Your task to perform on an android device: Do I have any events tomorrow? Image 0: 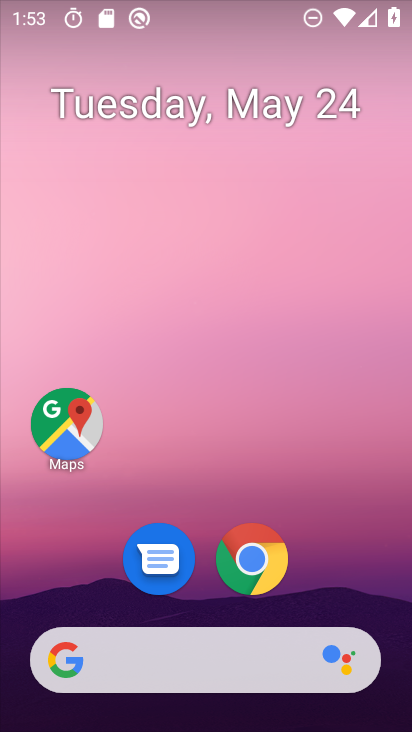
Step 0: press home button
Your task to perform on an android device: Do I have any events tomorrow? Image 1: 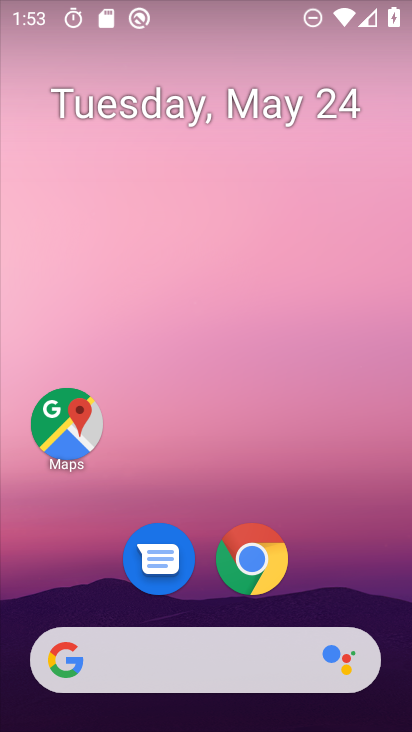
Step 1: drag from (399, 698) to (340, 229)
Your task to perform on an android device: Do I have any events tomorrow? Image 2: 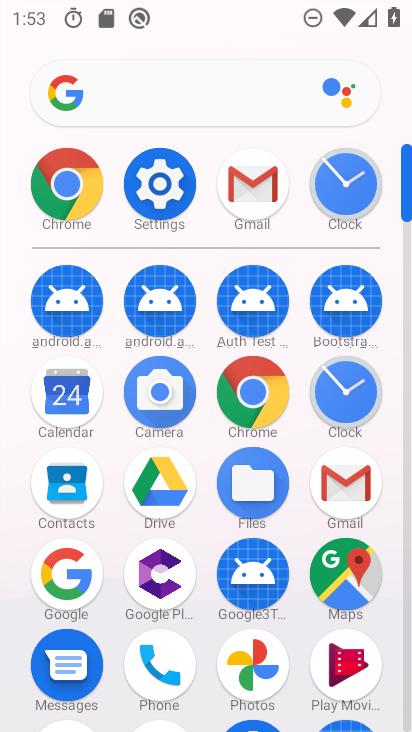
Step 2: click (70, 388)
Your task to perform on an android device: Do I have any events tomorrow? Image 3: 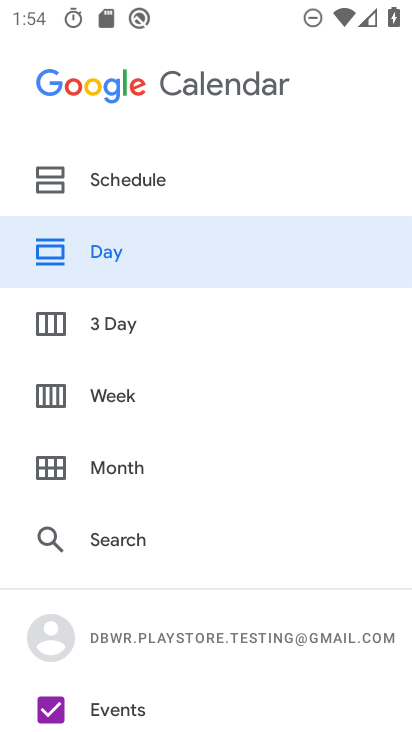
Step 3: press back button
Your task to perform on an android device: Do I have any events tomorrow? Image 4: 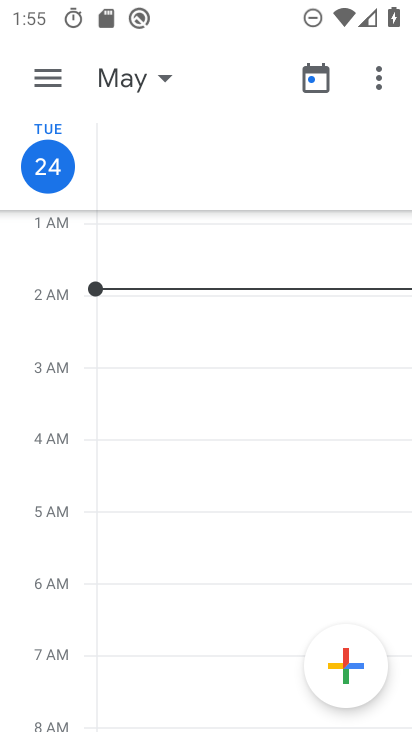
Step 4: press back button
Your task to perform on an android device: Do I have any events tomorrow? Image 5: 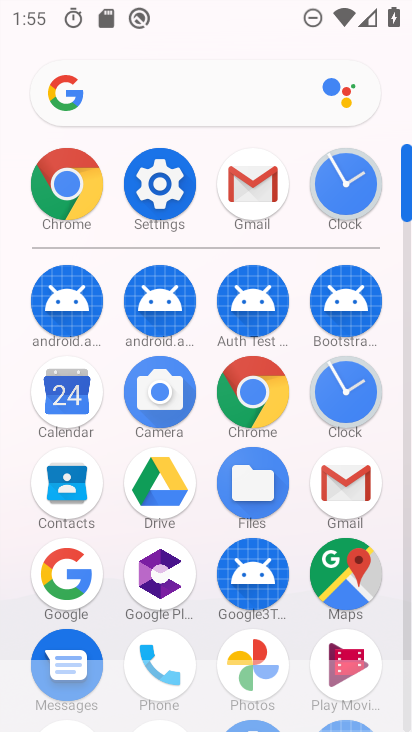
Step 5: click (63, 408)
Your task to perform on an android device: Do I have any events tomorrow? Image 6: 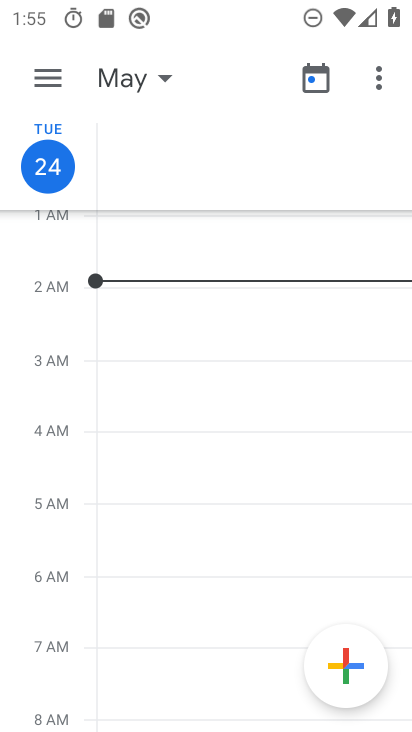
Step 6: click (161, 78)
Your task to perform on an android device: Do I have any events tomorrow? Image 7: 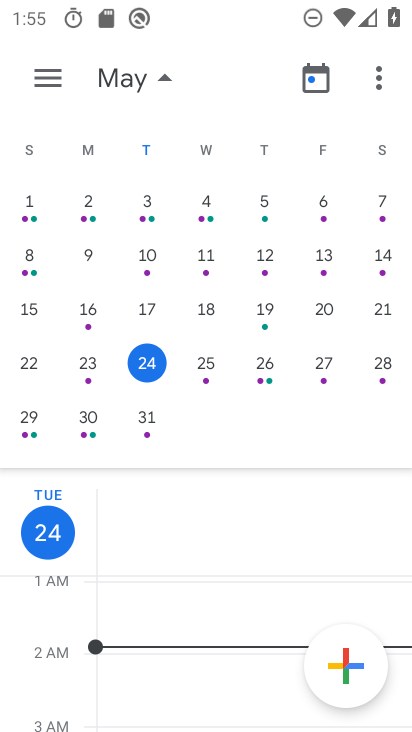
Step 7: click (213, 364)
Your task to perform on an android device: Do I have any events tomorrow? Image 8: 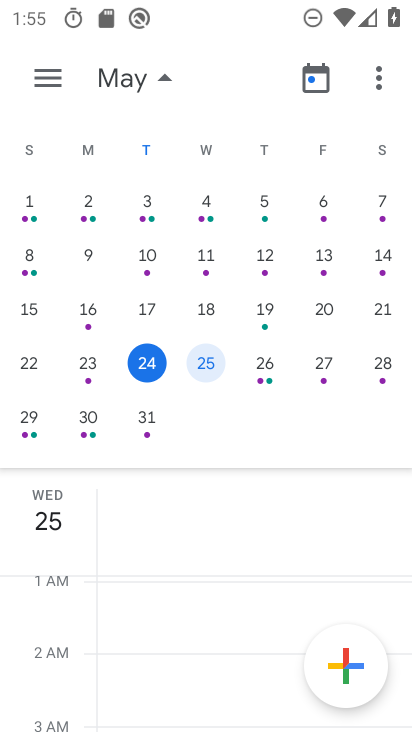
Step 8: click (55, 70)
Your task to perform on an android device: Do I have any events tomorrow? Image 9: 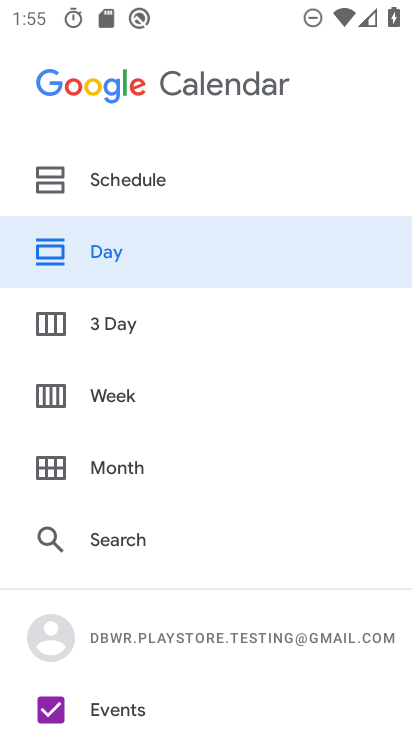
Step 9: click (85, 250)
Your task to perform on an android device: Do I have any events tomorrow? Image 10: 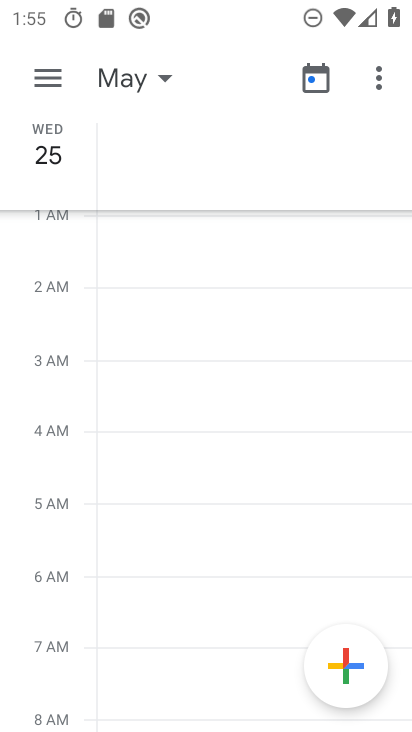
Step 10: task complete